Your task to perform on an android device: Do I have any events this weekend? Image 0: 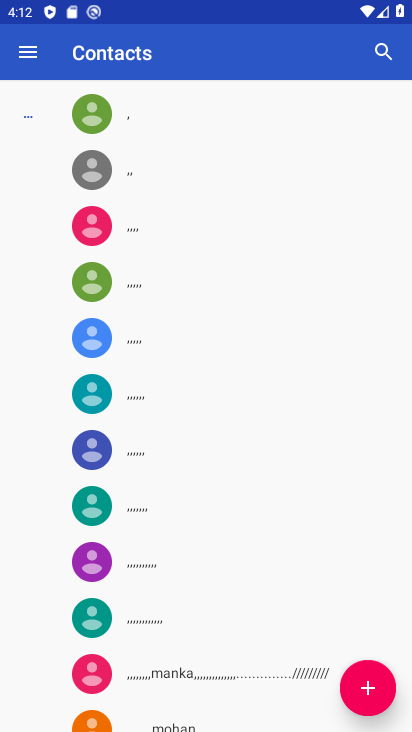
Step 0: press home button
Your task to perform on an android device: Do I have any events this weekend? Image 1: 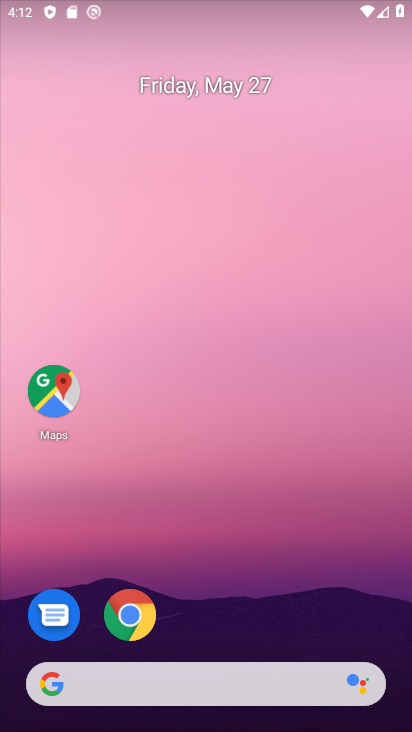
Step 1: drag from (311, 508) to (248, 44)
Your task to perform on an android device: Do I have any events this weekend? Image 2: 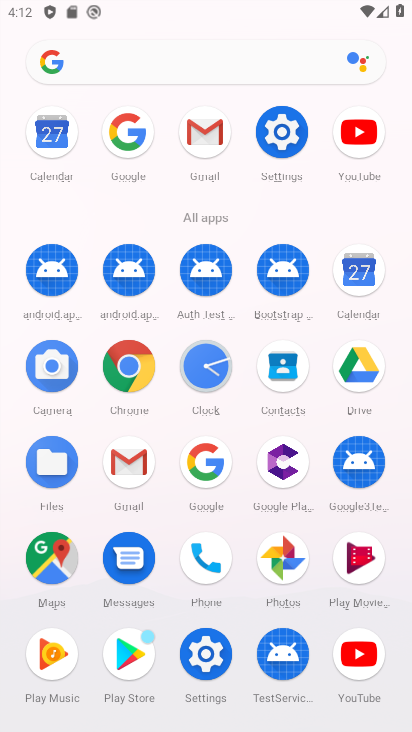
Step 2: click (354, 277)
Your task to perform on an android device: Do I have any events this weekend? Image 3: 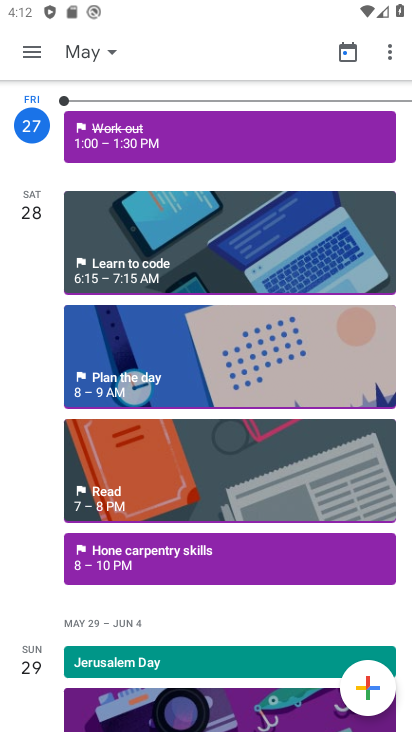
Step 3: task complete